Your task to perform on an android device: Show me popular videos on Youtube Image 0: 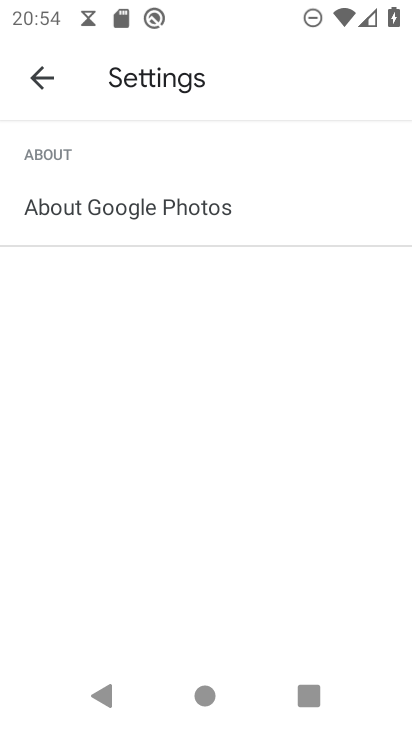
Step 0: press home button
Your task to perform on an android device: Show me popular videos on Youtube Image 1: 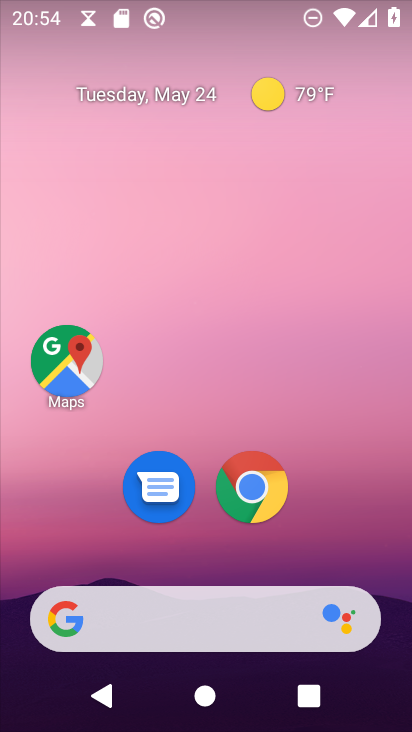
Step 1: drag from (23, 602) to (230, 116)
Your task to perform on an android device: Show me popular videos on Youtube Image 2: 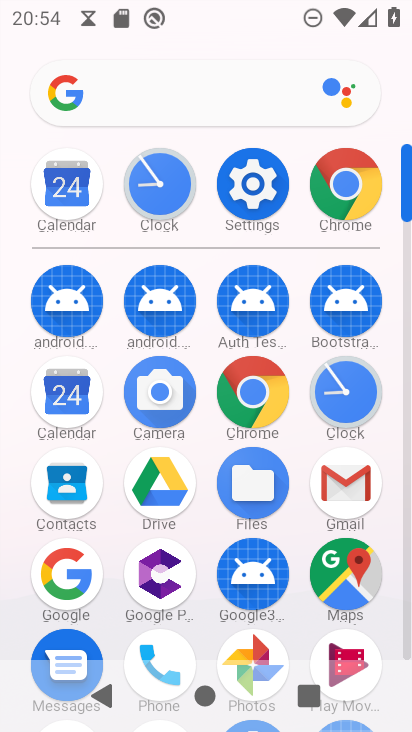
Step 2: drag from (16, 627) to (186, 100)
Your task to perform on an android device: Show me popular videos on Youtube Image 3: 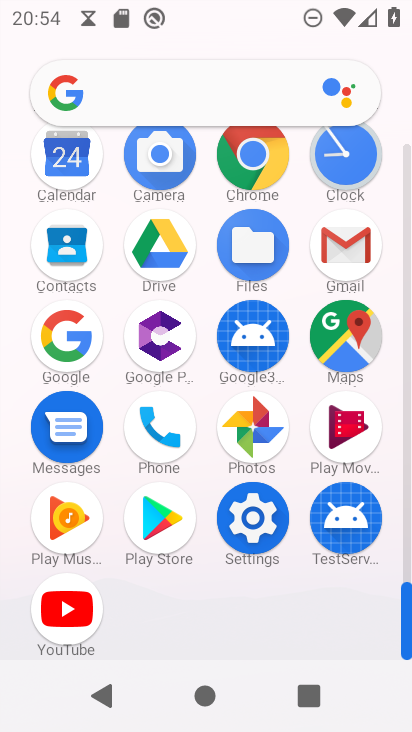
Step 3: click (64, 609)
Your task to perform on an android device: Show me popular videos on Youtube Image 4: 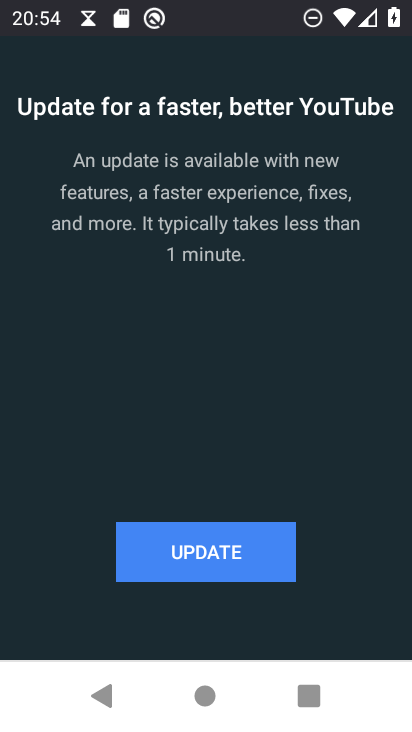
Step 4: task complete